Your task to perform on an android device: Go to battery settings Image 0: 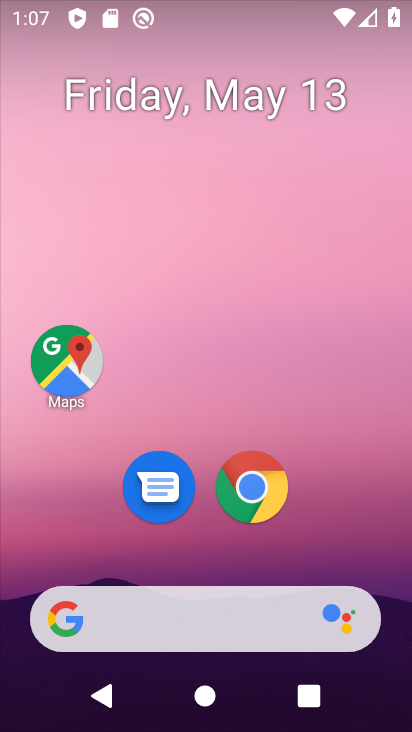
Step 0: drag from (321, 517) to (331, 166)
Your task to perform on an android device: Go to battery settings Image 1: 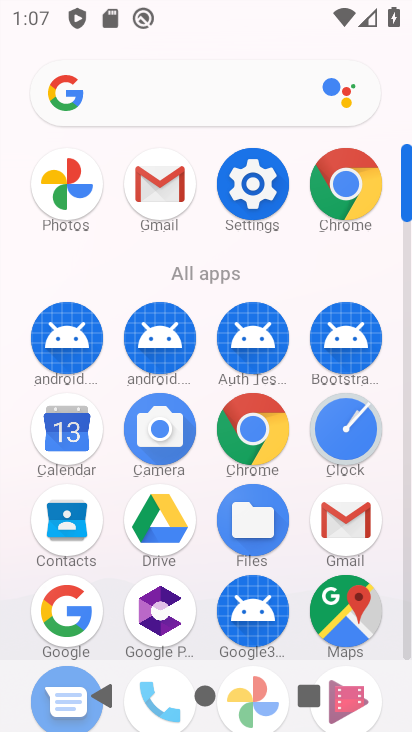
Step 1: click (259, 196)
Your task to perform on an android device: Go to battery settings Image 2: 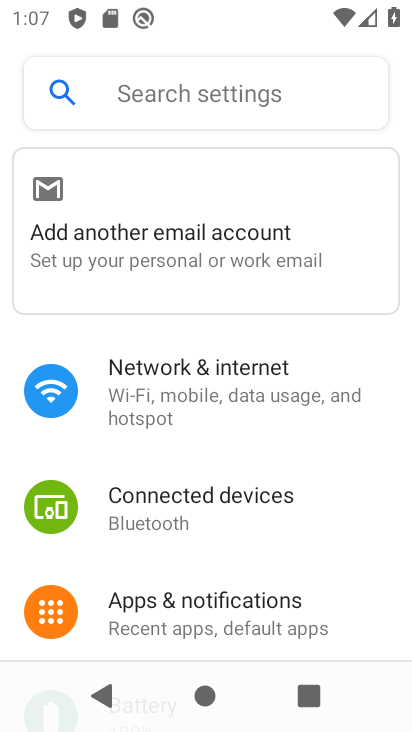
Step 2: drag from (286, 531) to (294, 205)
Your task to perform on an android device: Go to battery settings Image 3: 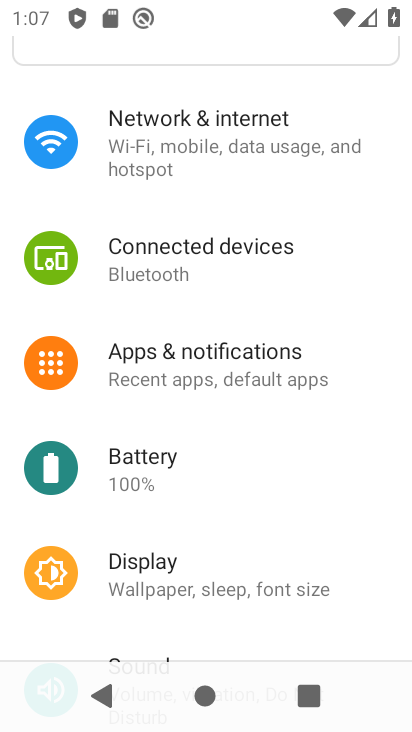
Step 3: click (154, 477)
Your task to perform on an android device: Go to battery settings Image 4: 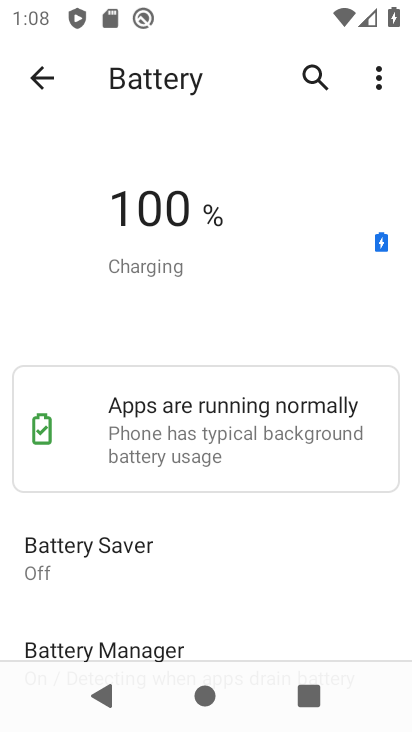
Step 4: click (380, 84)
Your task to perform on an android device: Go to battery settings Image 5: 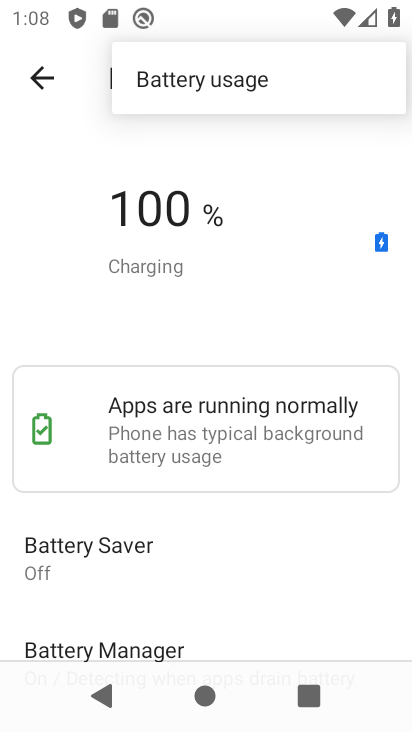
Step 5: task complete